Your task to perform on an android device: When is my next appointment? Image 0: 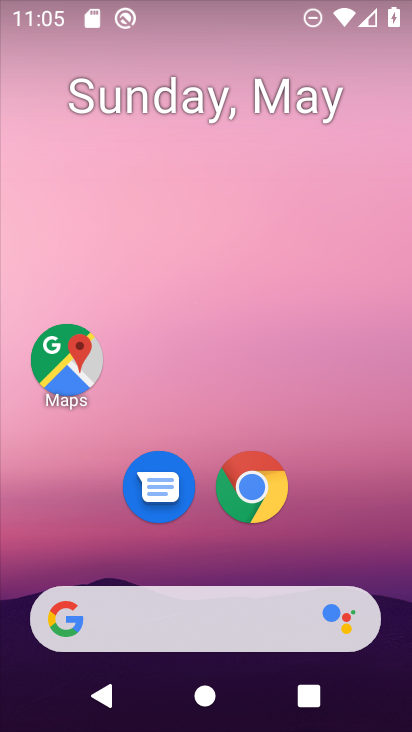
Step 0: drag from (383, 524) to (337, 0)
Your task to perform on an android device: When is my next appointment? Image 1: 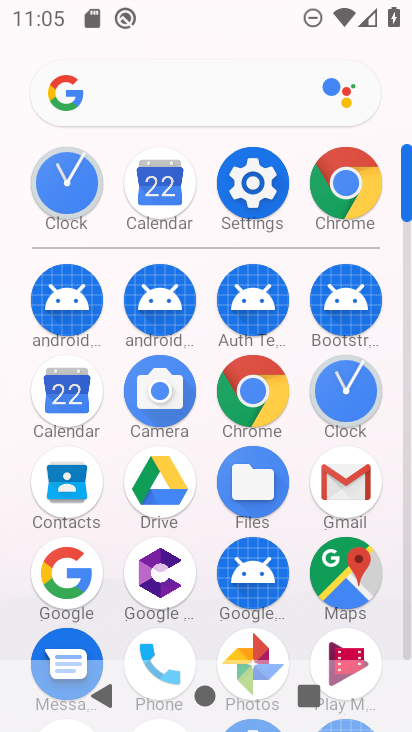
Step 1: click (158, 188)
Your task to perform on an android device: When is my next appointment? Image 2: 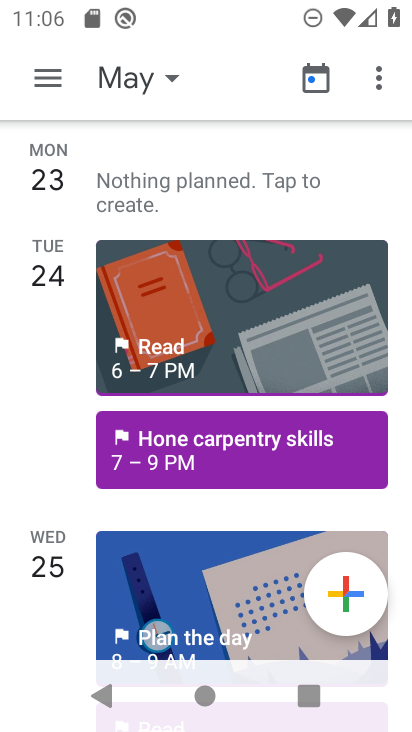
Step 2: task complete